Your task to perform on an android device: Go to Yahoo.com Image 0: 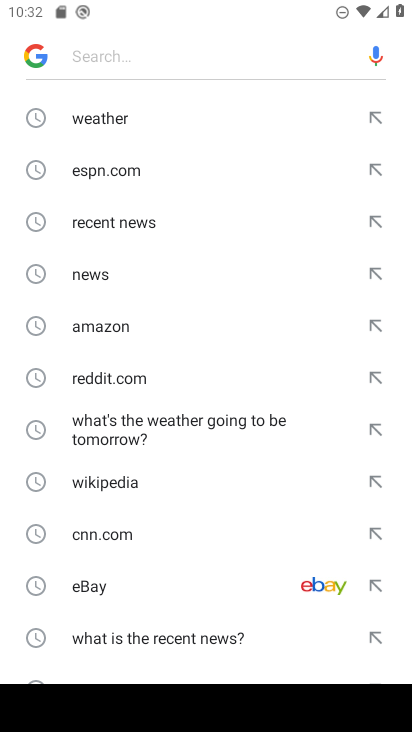
Step 0: press home button
Your task to perform on an android device: Go to Yahoo.com Image 1: 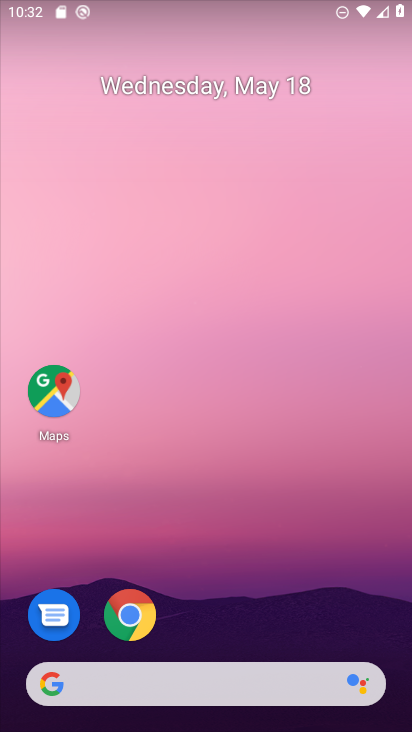
Step 1: click (129, 616)
Your task to perform on an android device: Go to Yahoo.com Image 2: 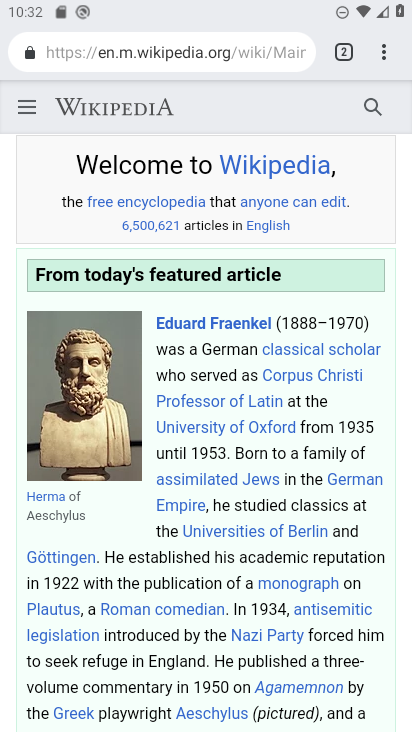
Step 2: press back button
Your task to perform on an android device: Go to Yahoo.com Image 3: 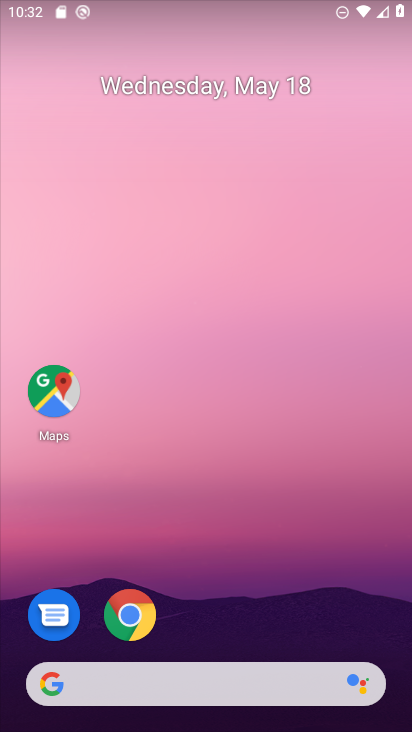
Step 3: click (139, 609)
Your task to perform on an android device: Go to Yahoo.com Image 4: 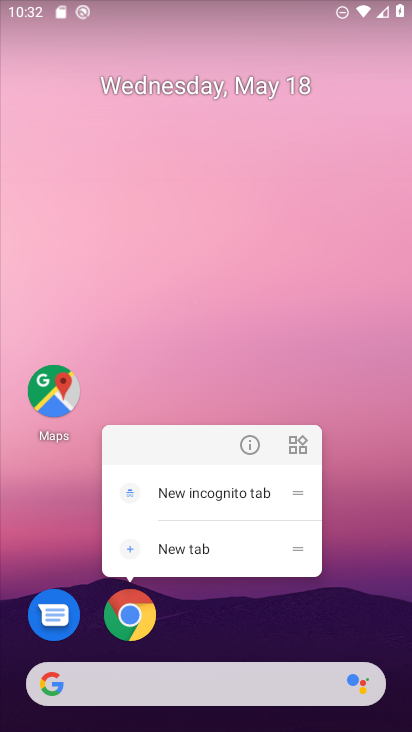
Step 4: click (129, 620)
Your task to perform on an android device: Go to Yahoo.com Image 5: 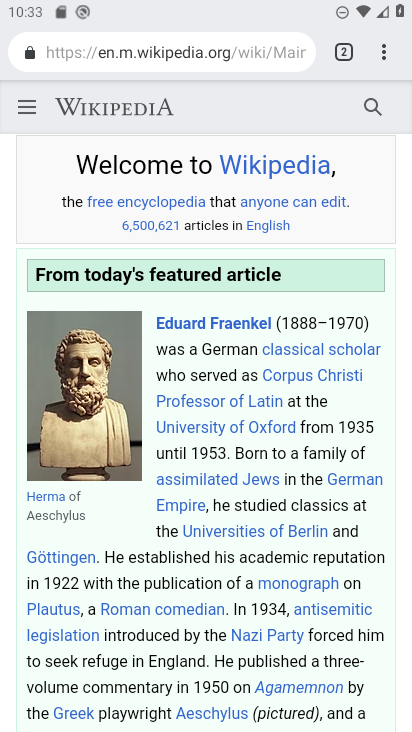
Step 5: click (238, 55)
Your task to perform on an android device: Go to Yahoo.com Image 6: 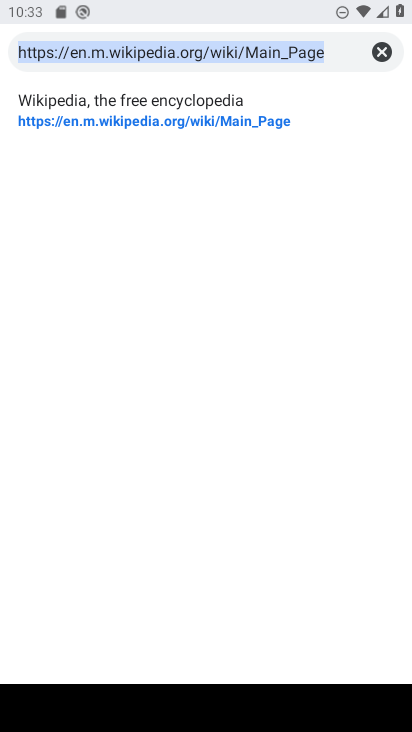
Step 6: click (385, 46)
Your task to perform on an android device: Go to Yahoo.com Image 7: 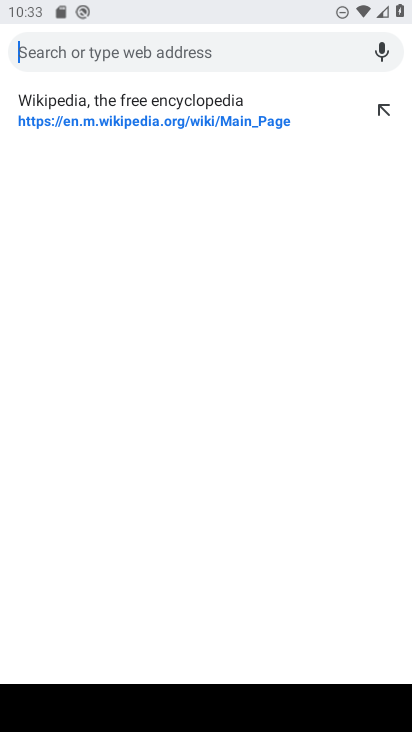
Step 7: type "yahoo.com"
Your task to perform on an android device: Go to Yahoo.com Image 8: 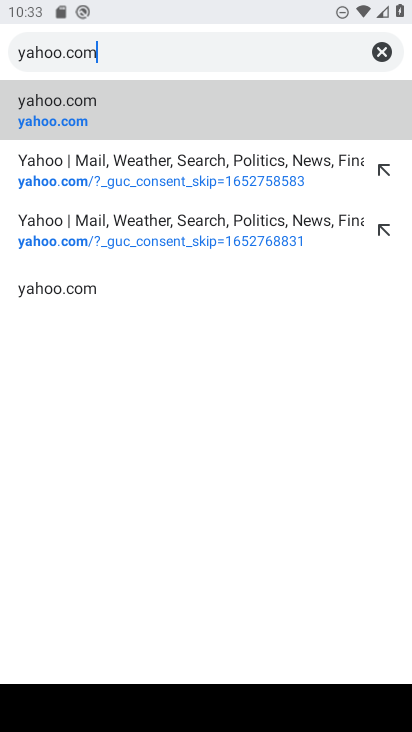
Step 8: click (146, 113)
Your task to perform on an android device: Go to Yahoo.com Image 9: 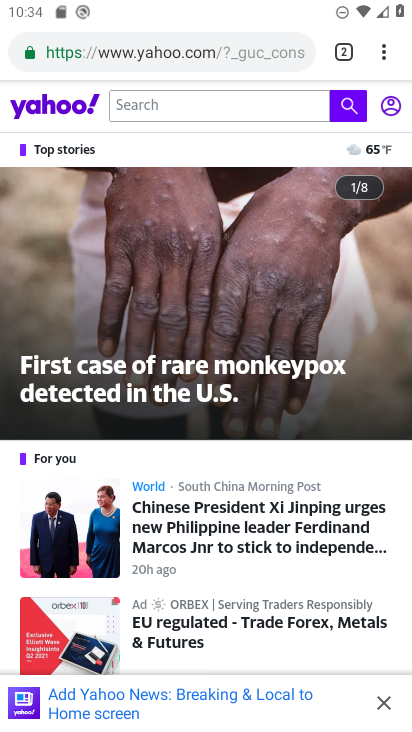
Step 9: task complete